Your task to perform on an android device: open a bookmark in the chrome app Image 0: 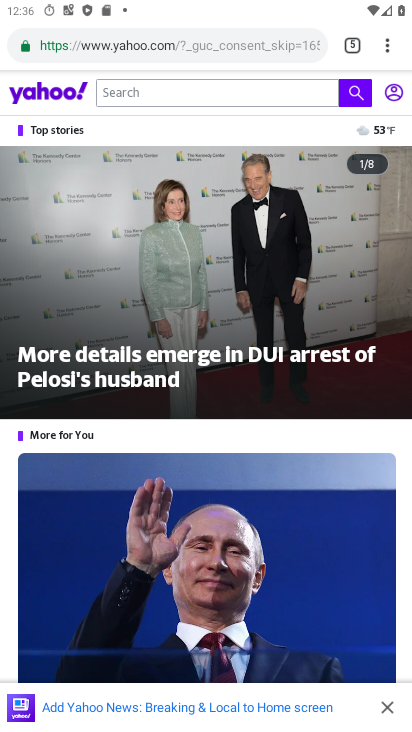
Step 0: press home button
Your task to perform on an android device: open a bookmark in the chrome app Image 1: 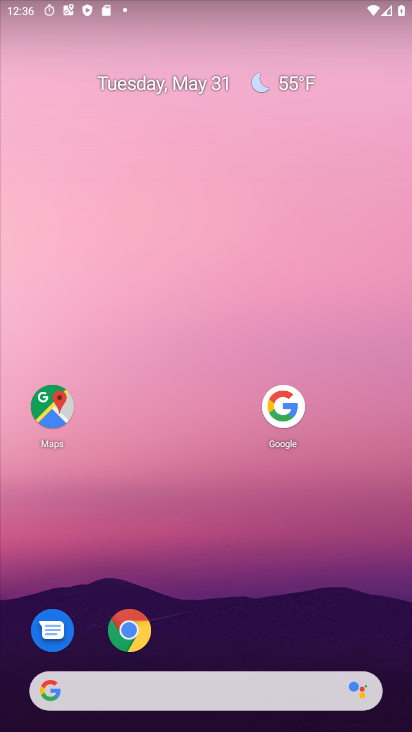
Step 1: click (137, 627)
Your task to perform on an android device: open a bookmark in the chrome app Image 2: 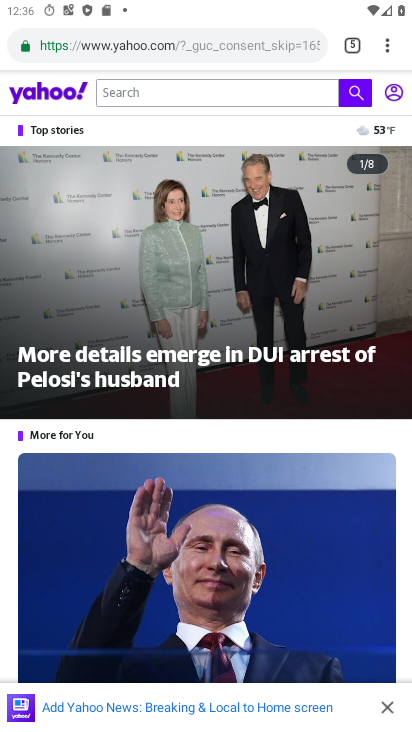
Step 2: task complete